Your task to perform on an android device: turn off sleep mode Image 0: 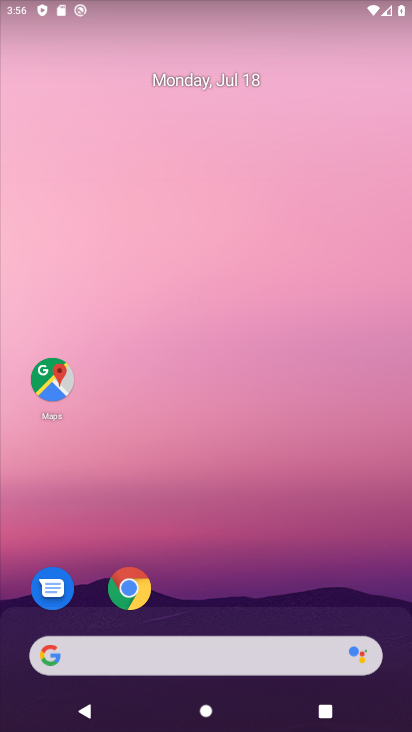
Step 0: drag from (286, 612) to (278, 253)
Your task to perform on an android device: turn off sleep mode Image 1: 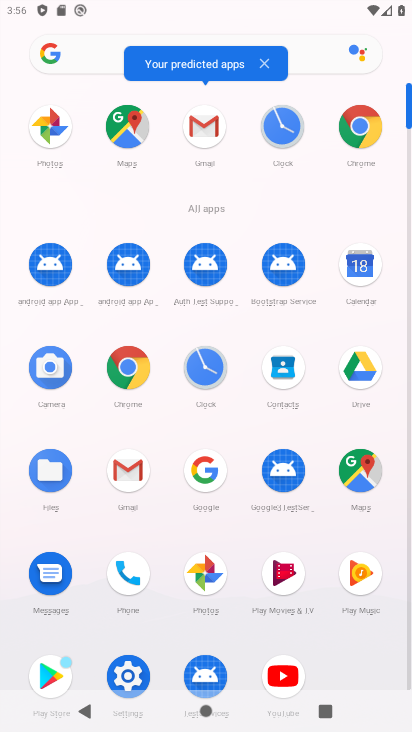
Step 1: click (123, 672)
Your task to perform on an android device: turn off sleep mode Image 2: 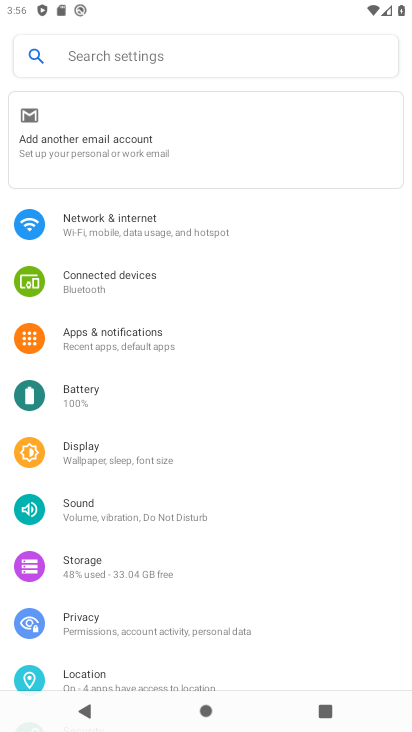
Step 2: task complete